Your task to perform on an android device: Go to notification settings Image 0: 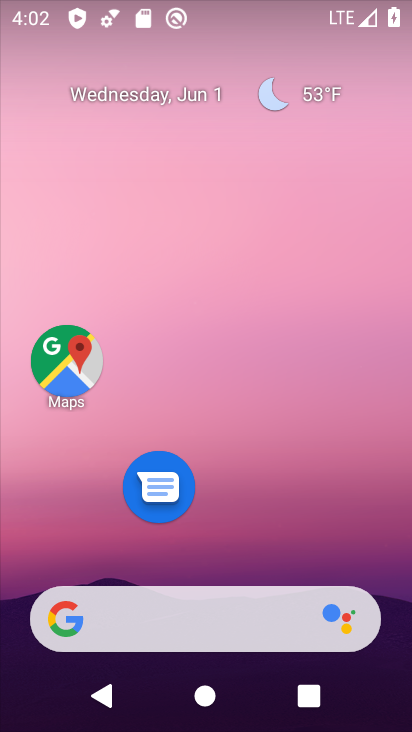
Step 0: drag from (223, 568) to (250, 176)
Your task to perform on an android device: Go to notification settings Image 1: 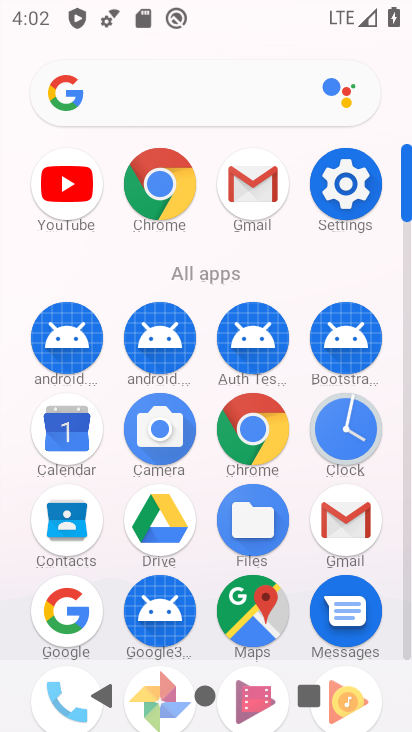
Step 1: click (339, 205)
Your task to perform on an android device: Go to notification settings Image 2: 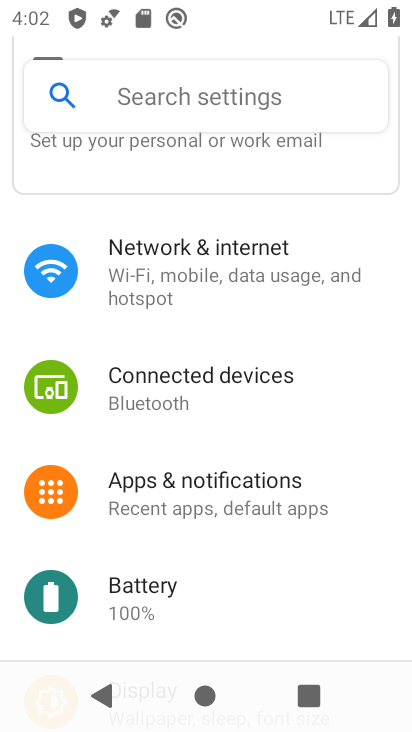
Step 2: click (259, 497)
Your task to perform on an android device: Go to notification settings Image 3: 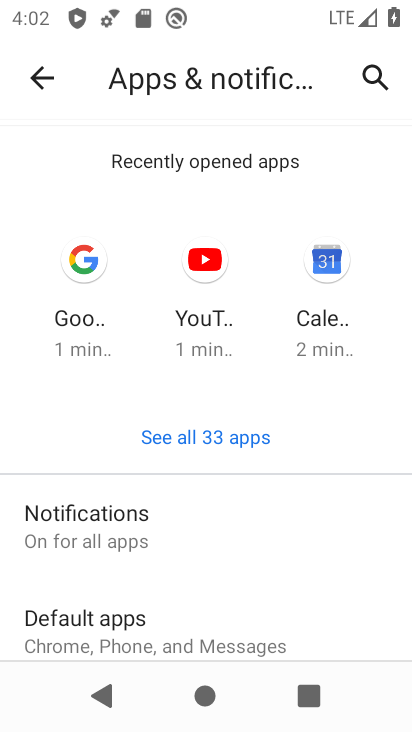
Step 3: click (116, 541)
Your task to perform on an android device: Go to notification settings Image 4: 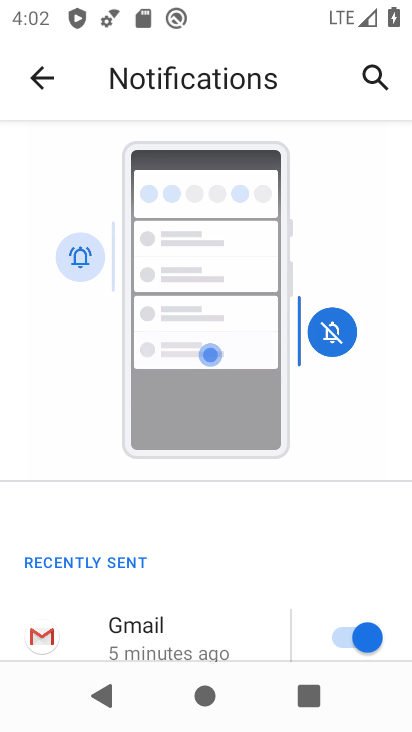
Step 4: task complete